Your task to perform on an android device: change the clock display to show seconds Image 0: 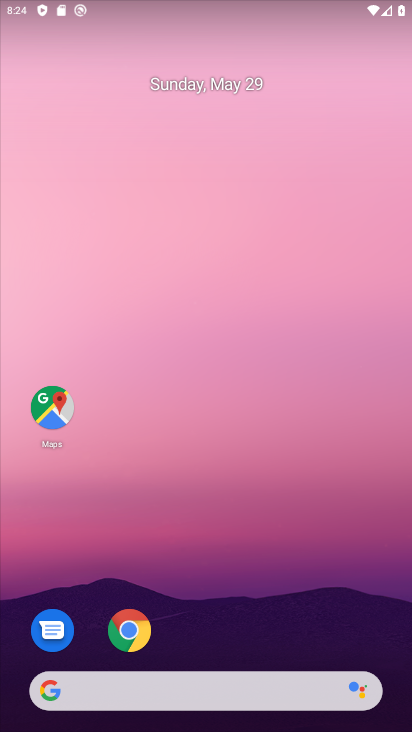
Step 0: drag from (205, 654) to (311, 140)
Your task to perform on an android device: change the clock display to show seconds Image 1: 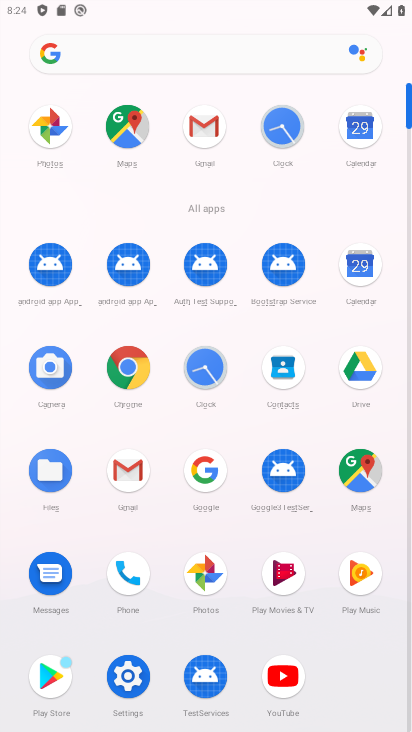
Step 1: click (214, 365)
Your task to perform on an android device: change the clock display to show seconds Image 2: 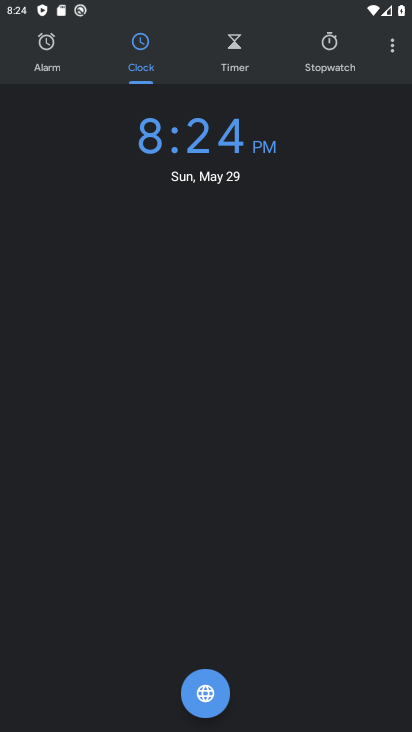
Step 2: click (388, 55)
Your task to perform on an android device: change the clock display to show seconds Image 3: 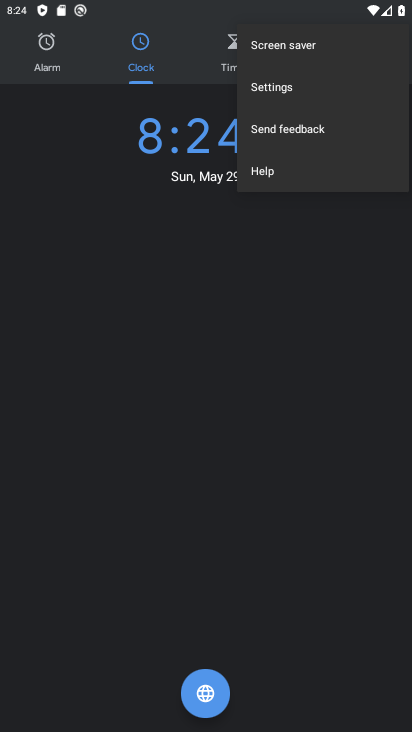
Step 3: click (355, 86)
Your task to perform on an android device: change the clock display to show seconds Image 4: 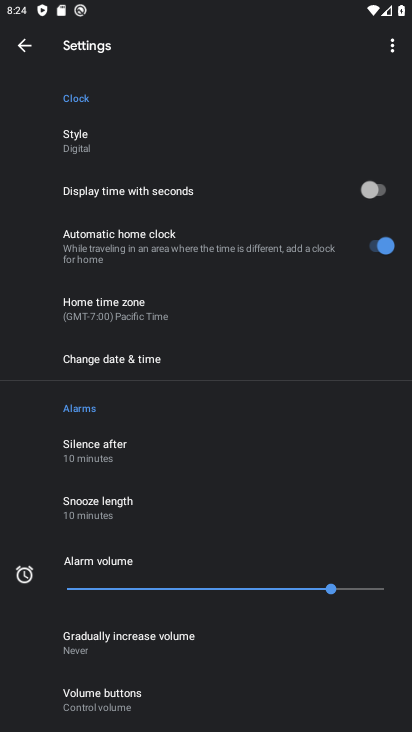
Step 4: click (410, 185)
Your task to perform on an android device: change the clock display to show seconds Image 5: 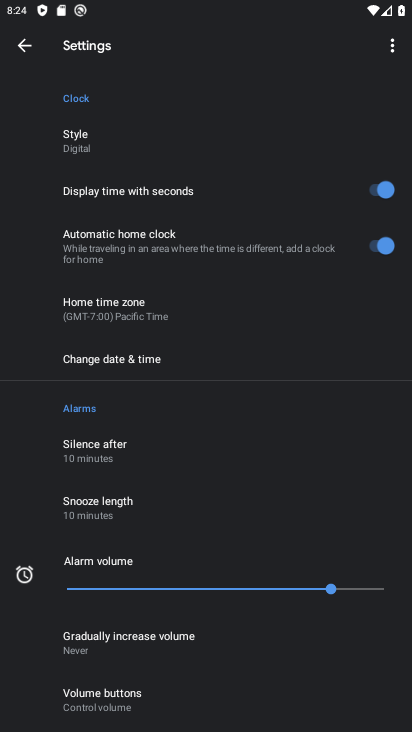
Step 5: task complete